Your task to perform on an android device: delete a single message in the gmail app Image 0: 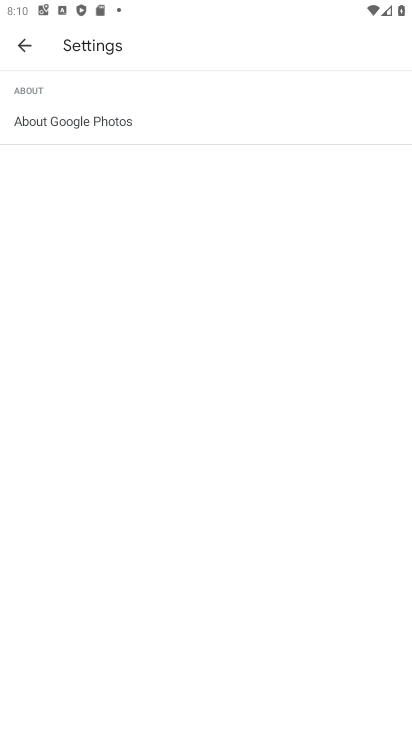
Step 0: press home button
Your task to perform on an android device: delete a single message in the gmail app Image 1: 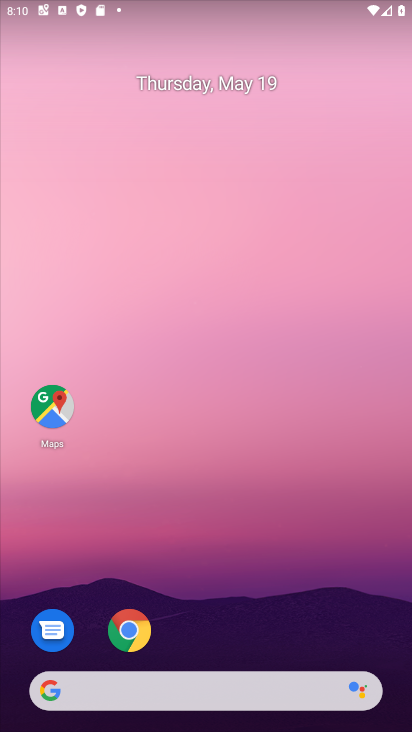
Step 1: drag from (391, 655) to (239, 20)
Your task to perform on an android device: delete a single message in the gmail app Image 2: 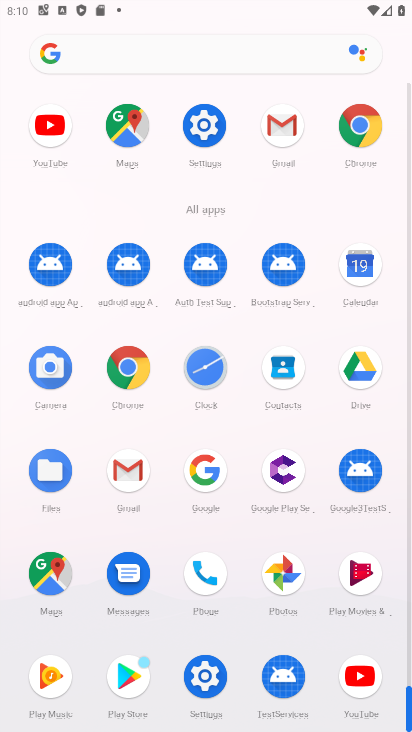
Step 2: click (126, 468)
Your task to perform on an android device: delete a single message in the gmail app Image 3: 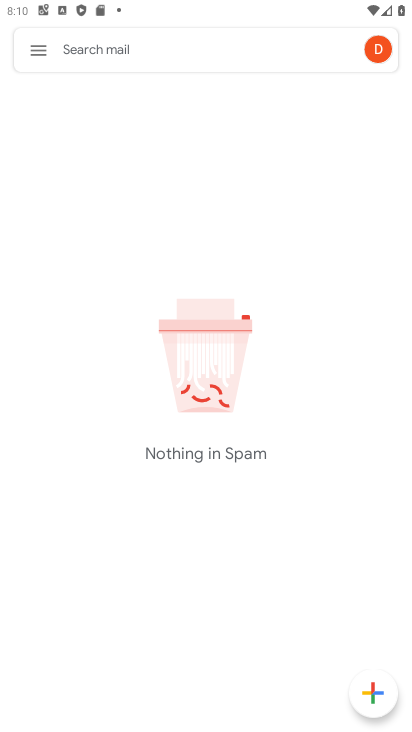
Step 3: click (37, 48)
Your task to perform on an android device: delete a single message in the gmail app Image 4: 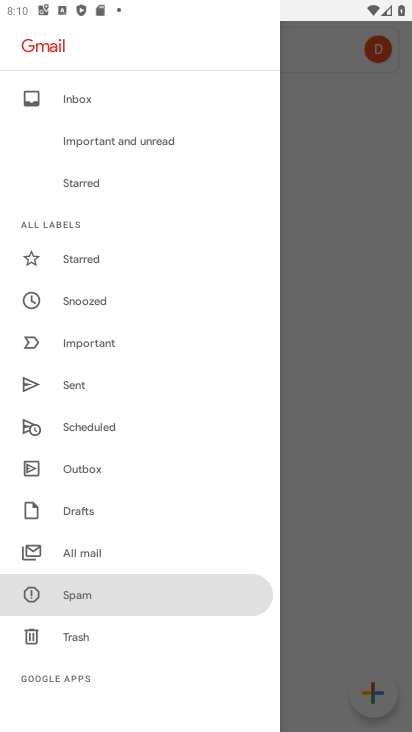
Step 4: click (86, 551)
Your task to perform on an android device: delete a single message in the gmail app Image 5: 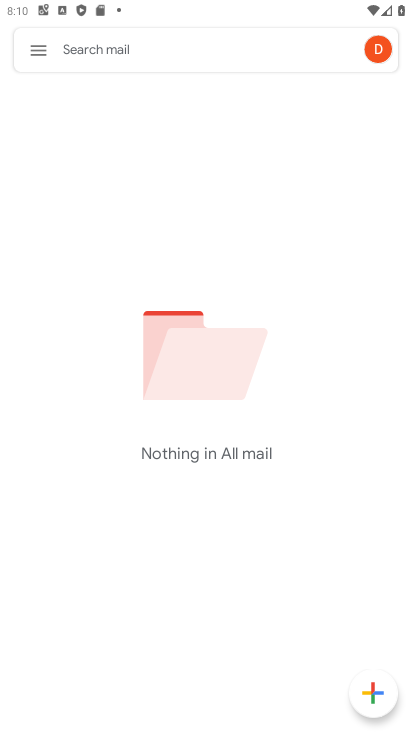
Step 5: task complete